Your task to perform on an android device: Open my contact list Image 0: 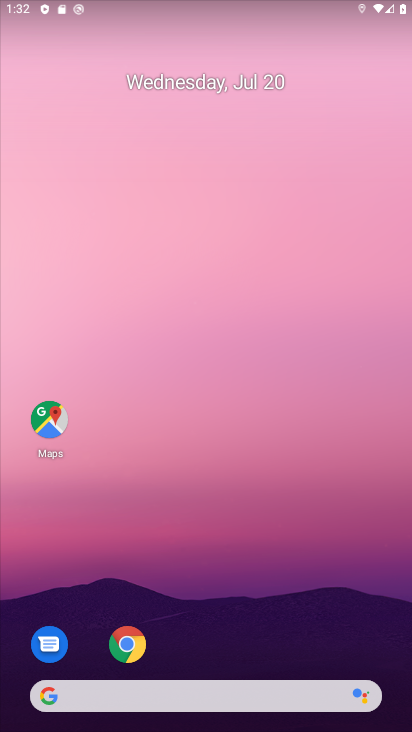
Step 0: drag from (237, 598) to (163, 133)
Your task to perform on an android device: Open my contact list Image 1: 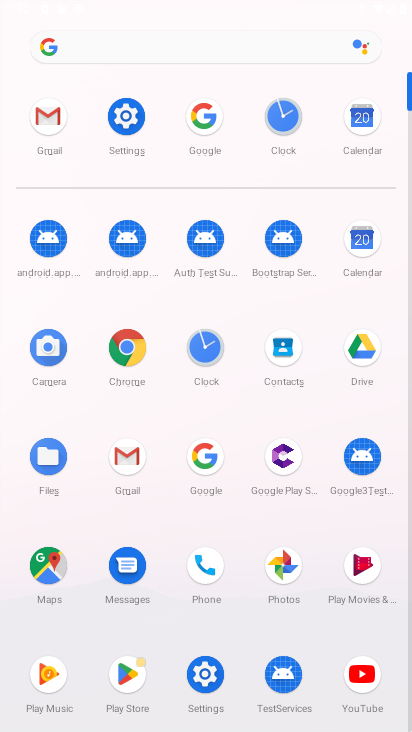
Step 1: click (287, 339)
Your task to perform on an android device: Open my contact list Image 2: 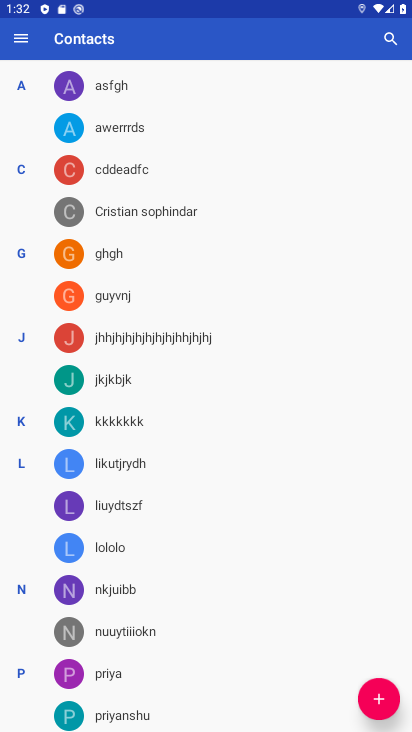
Step 2: task complete